Your task to perform on an android device: Open the web browser Image 0: 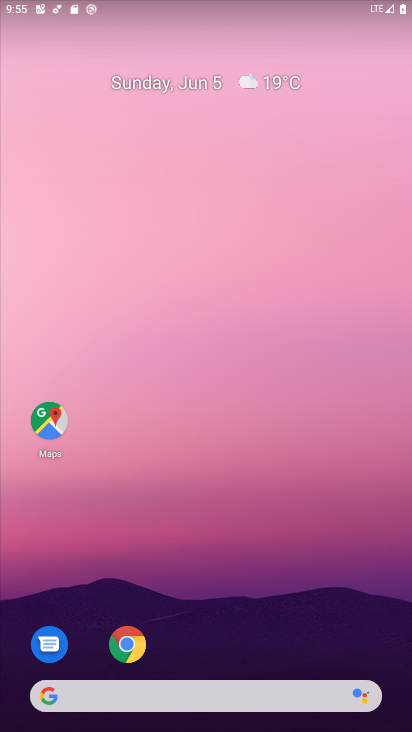
Step 0: click (135, 644)
Your task to perform on an android device: Open the web browser Image 1: 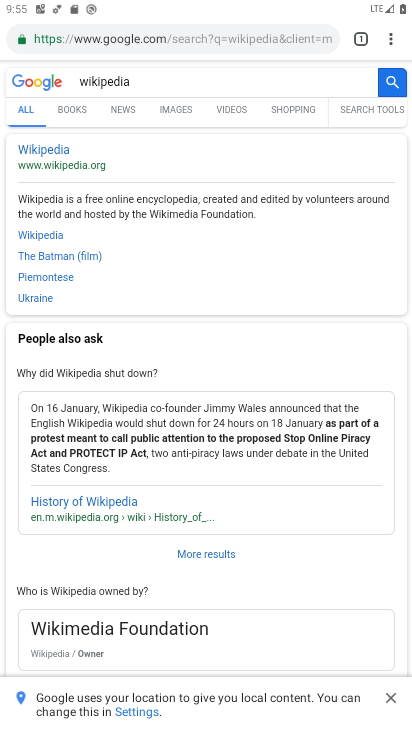
Step 1: task complete